Your task to perform on an android device: Go to Yahoo.com Image 0: 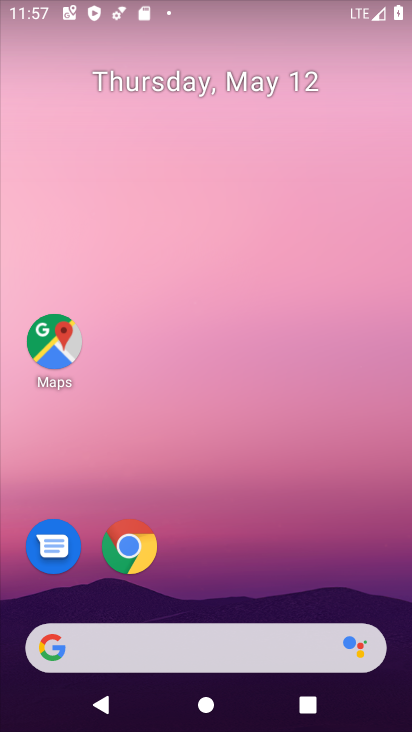
Step 0: click (130, 549)
Your task to perform on an android device: Go to Yahoo.com Image 1: 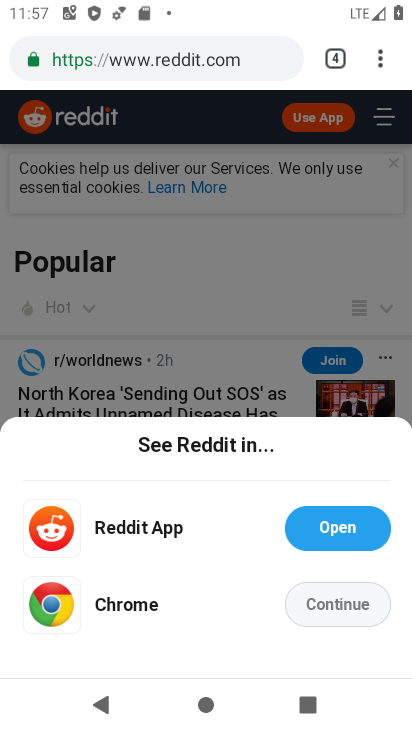
Step 1: click (341, 59)
Your task to perform on an android device: Go to Yahoo.com Image 2: 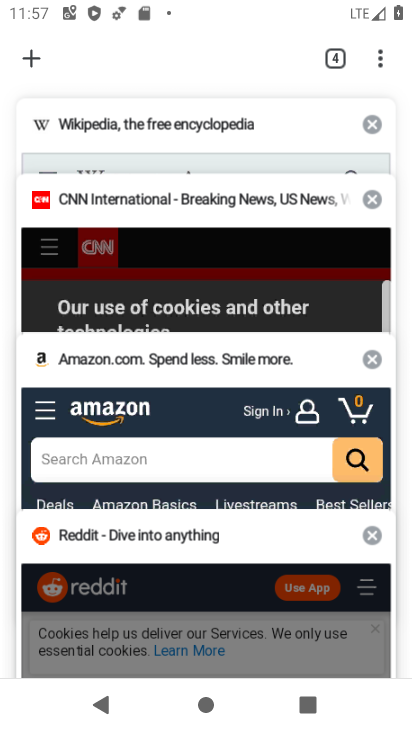
Step 2: click (23, 53)
Your task to perform on an android device: Go to Yahoo.com Image 3: 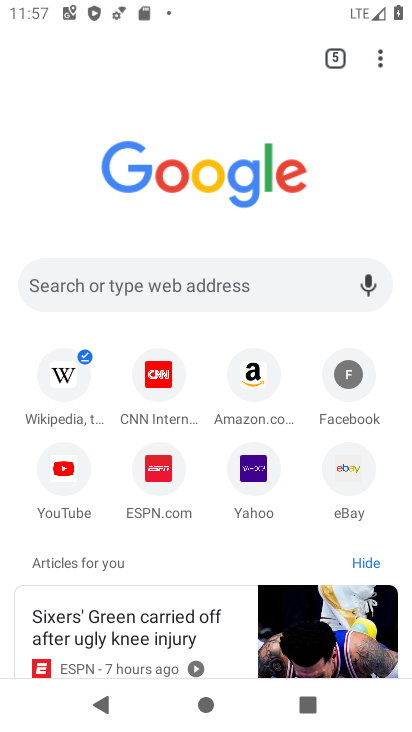
Step 3: click (249, 469)
Your task to perform on an android device: Go to Yahoo.com Image 4: 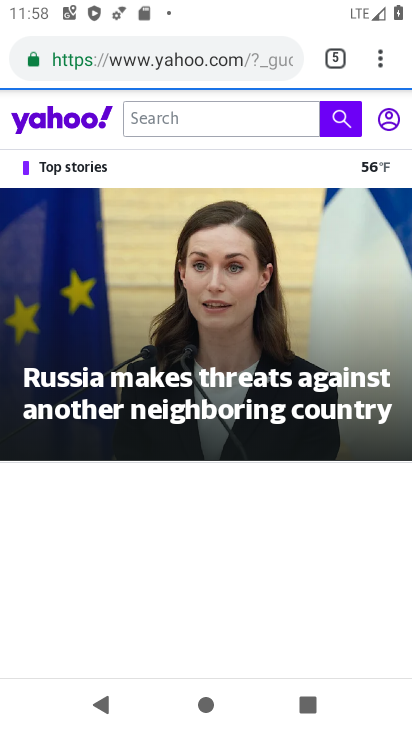
Step 4: task complete